Your task to perform on an android device: toggle data saver in the chrome app Image 0: 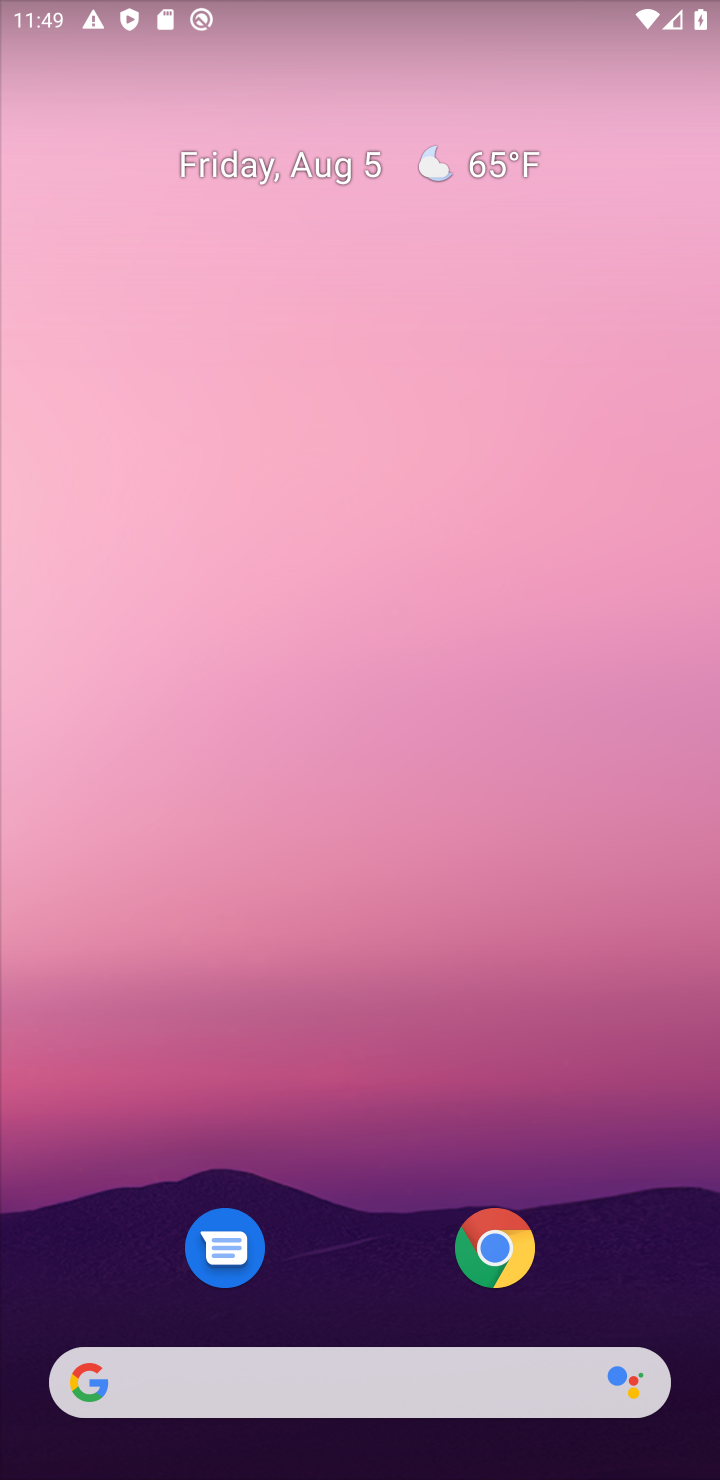
Step 0: press home button
Your task to perform on an android device: toggle data saver in the chrome app Image 1: 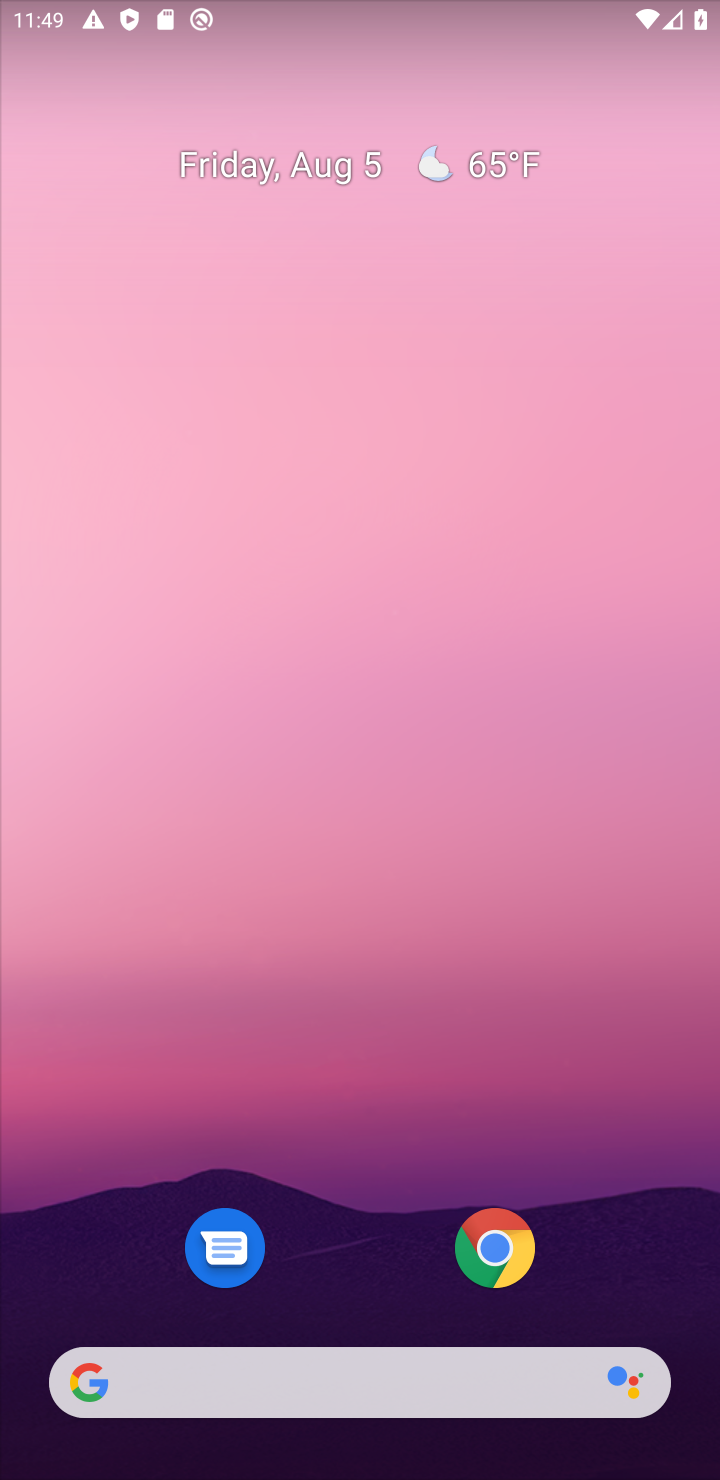
Step 1: drag from (372, 1288) to (264, 39)
Your task to perform on an android device: toggle data saver in the chrome app Image 2: 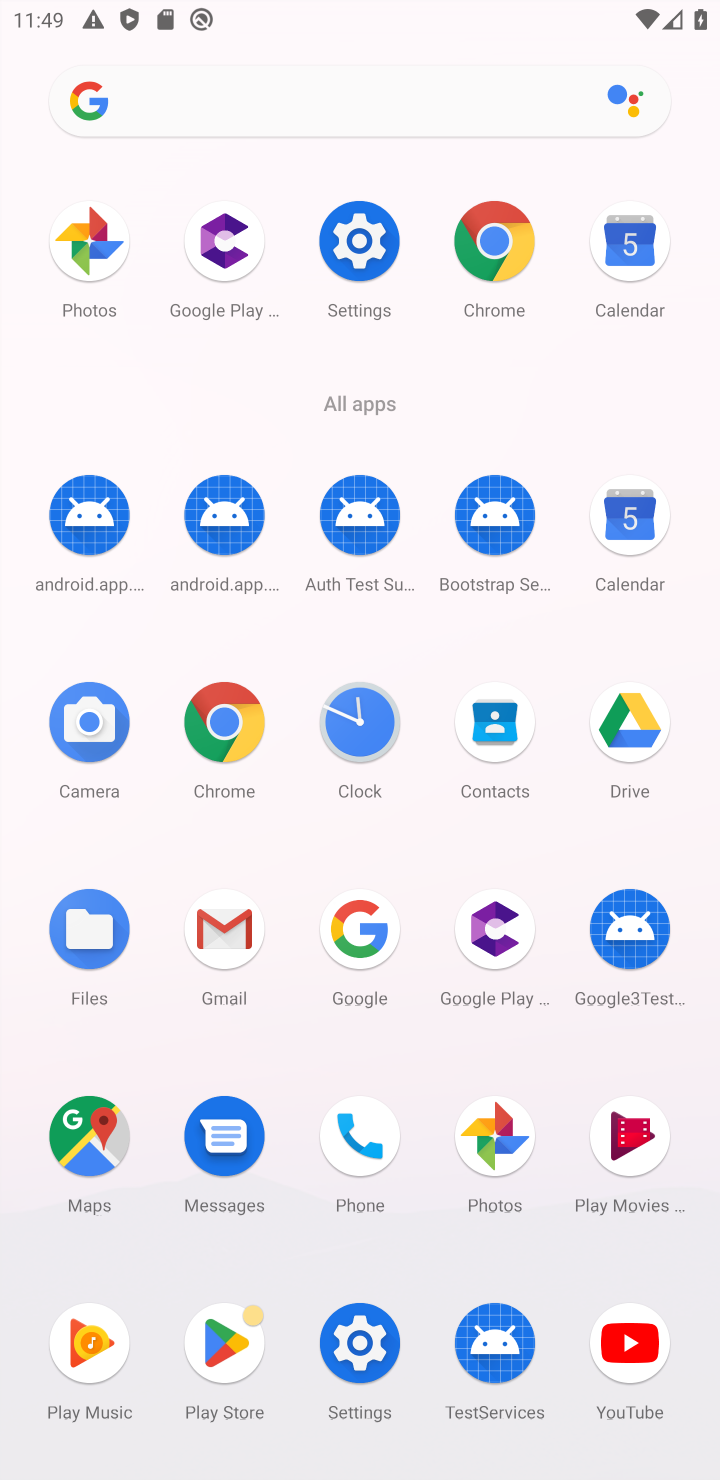
Step 2: click (218, 712)
Your task to perform on an android device: toggle data saver in the chrome app Image 3: 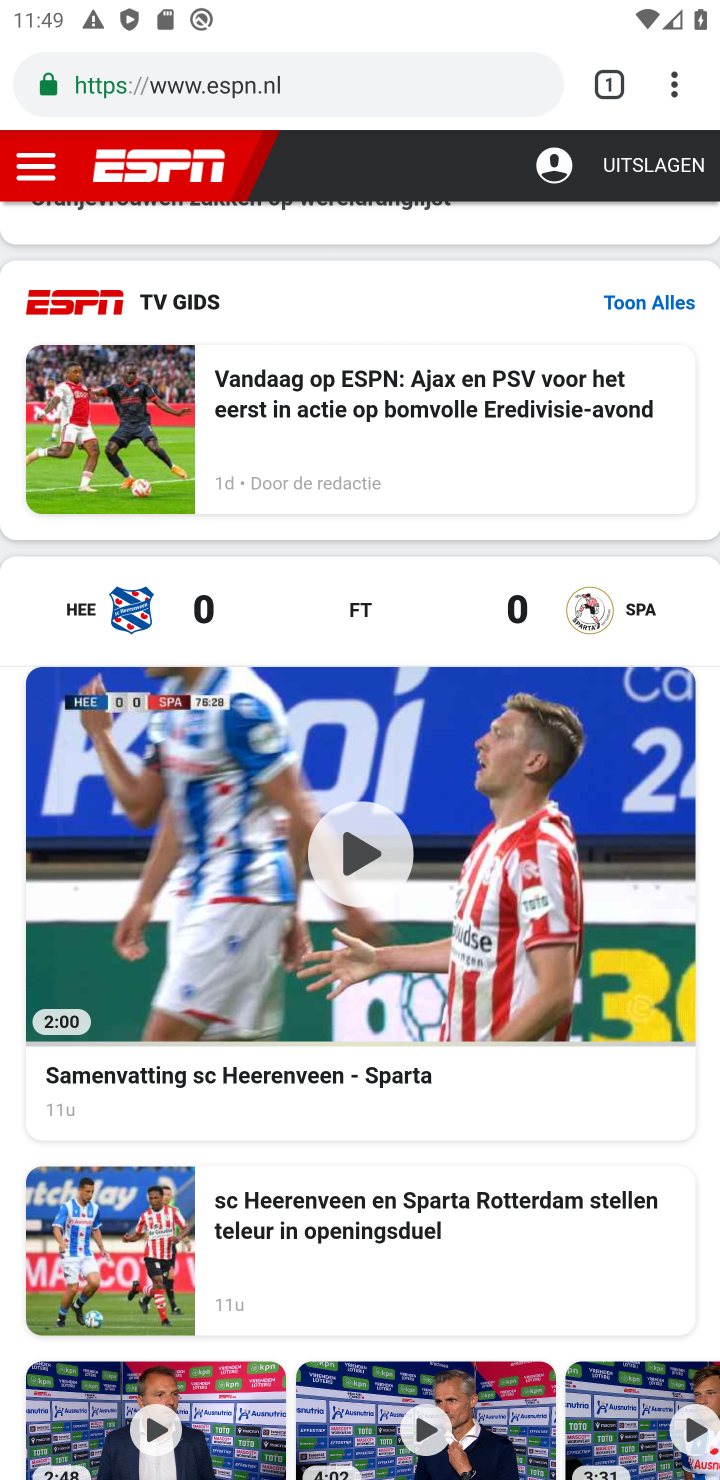
Step 3: click (676, 76)
Your task to perform on an android device: toggle data saver in the chrome app Image 4: 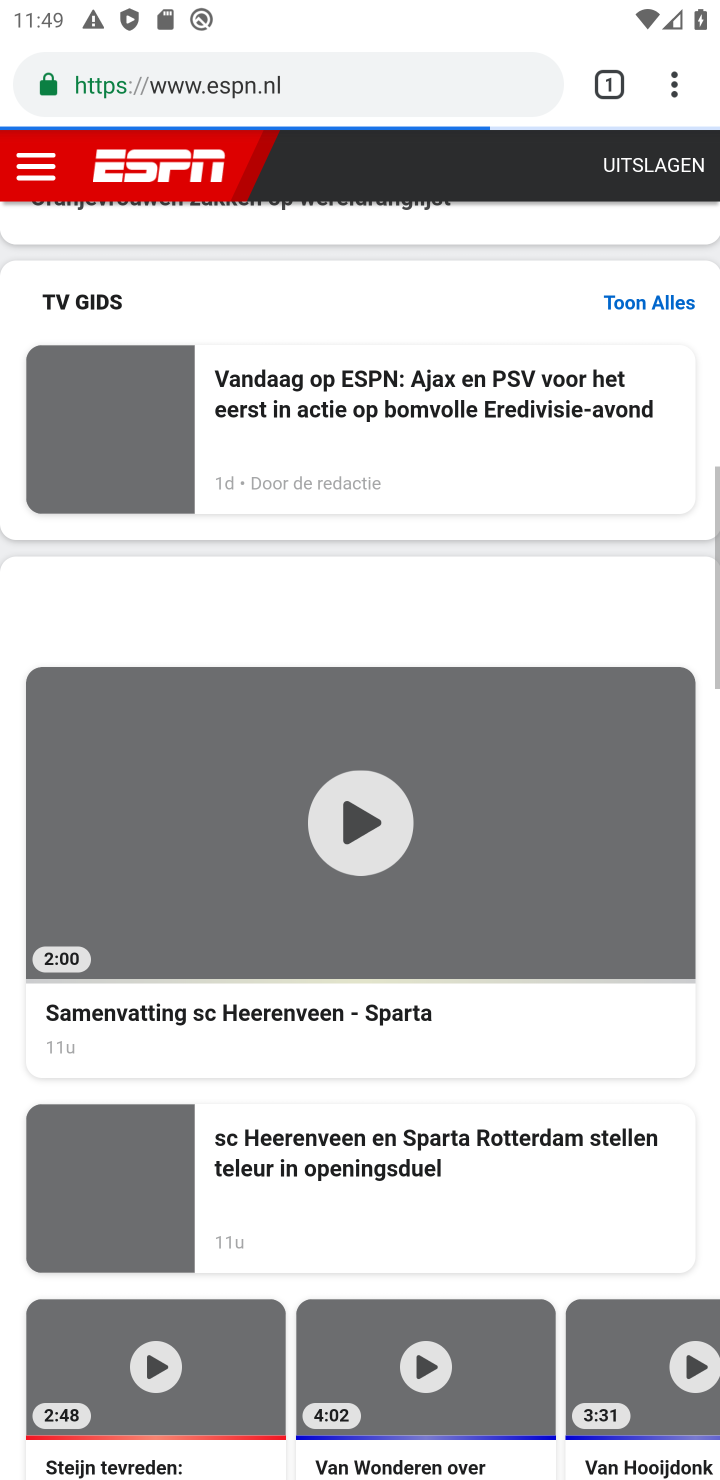
Step 4: click (678, 73)
Your task to perform on an android device: toggle data saver in the chrome app Image 5: 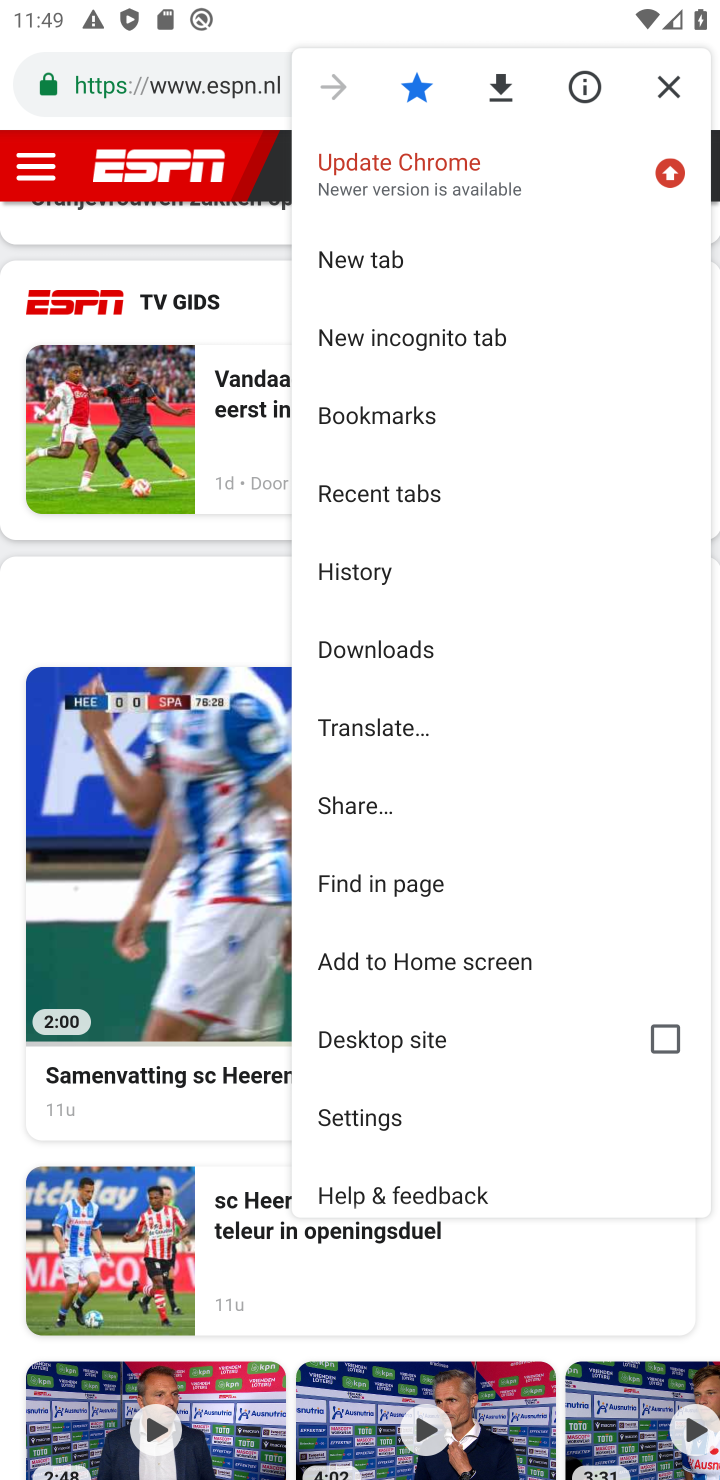
Step 5: click (412, 1111)
Your task to perform on an android device: toggle data saver in the chrome app Image 6: 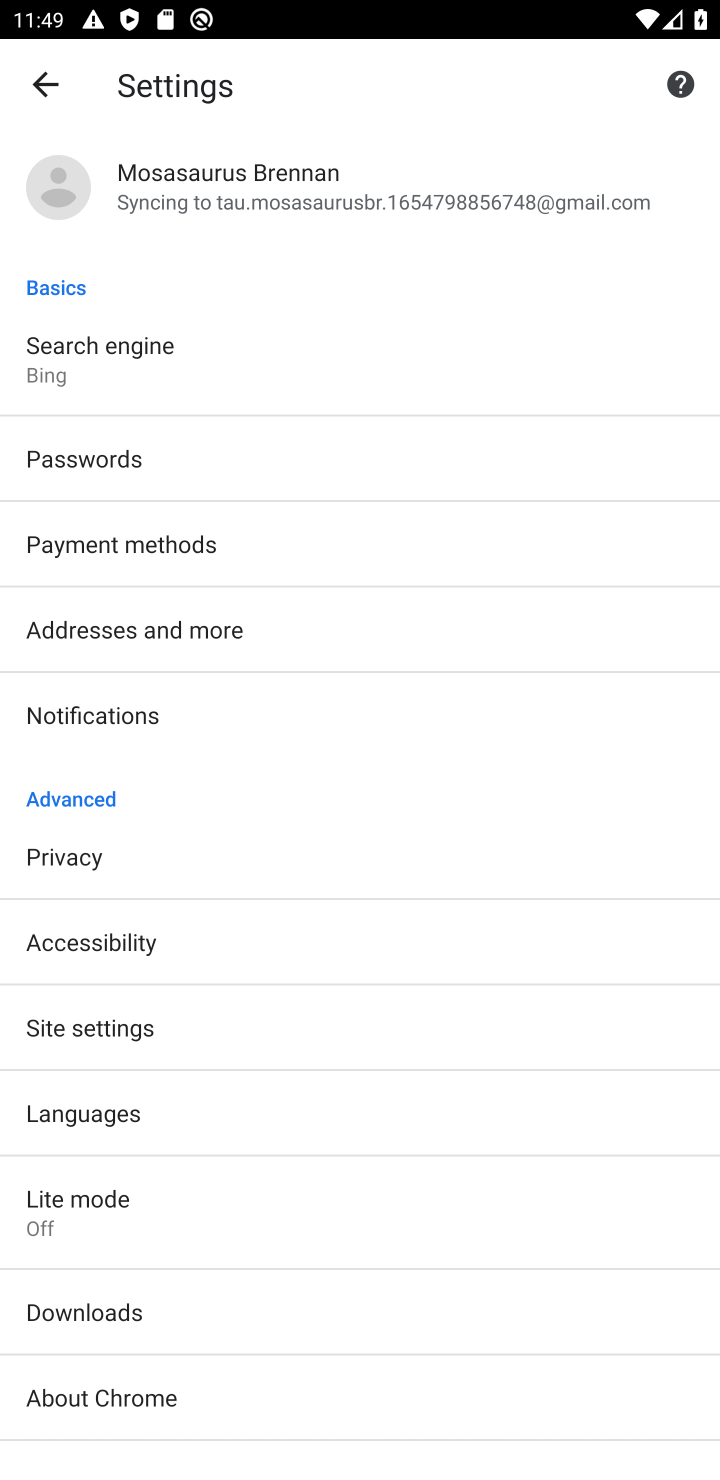
Step 6: click (133, 1217)
Your task to perform on an android device: toggle data saver in the chrome app Image 7: 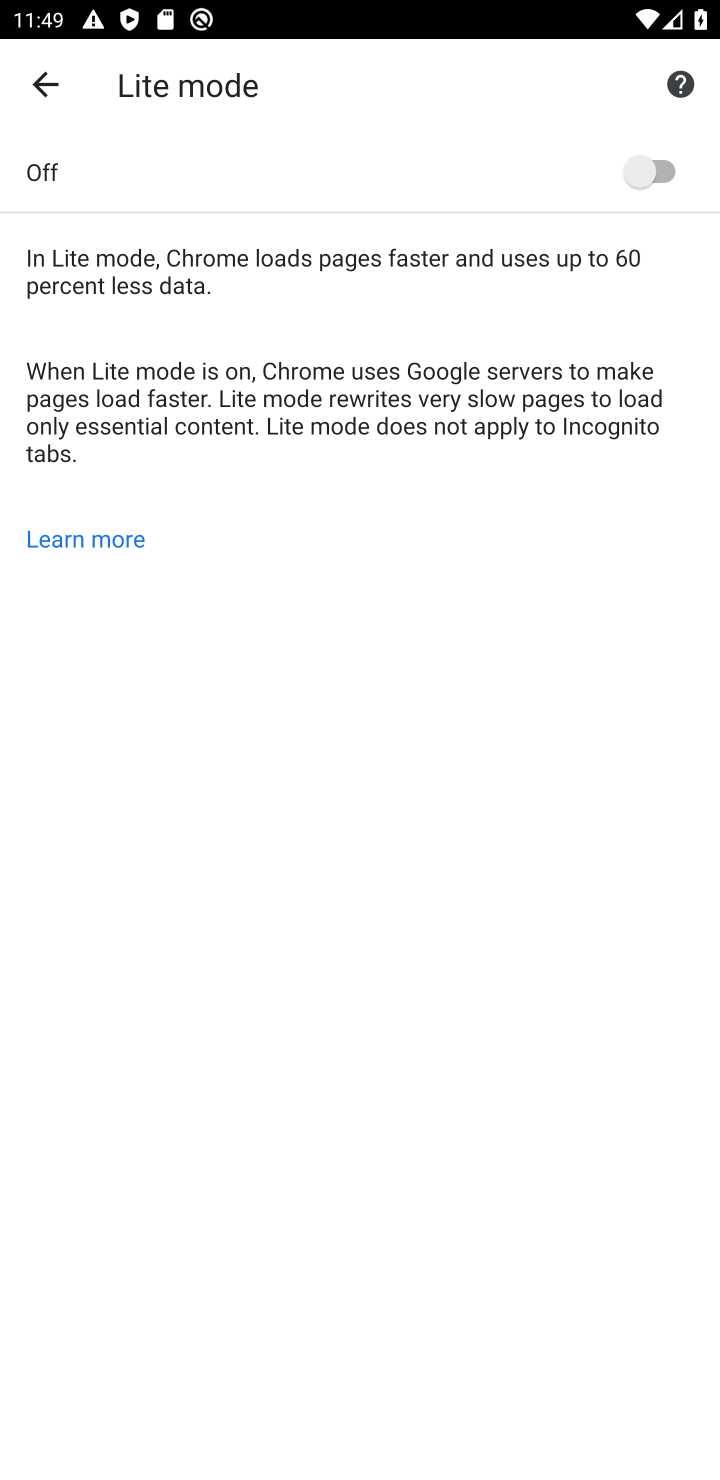
Step 7: click (661, 158)
Your task to perform on an android device: toggle data saver in the chrome app Image 8: 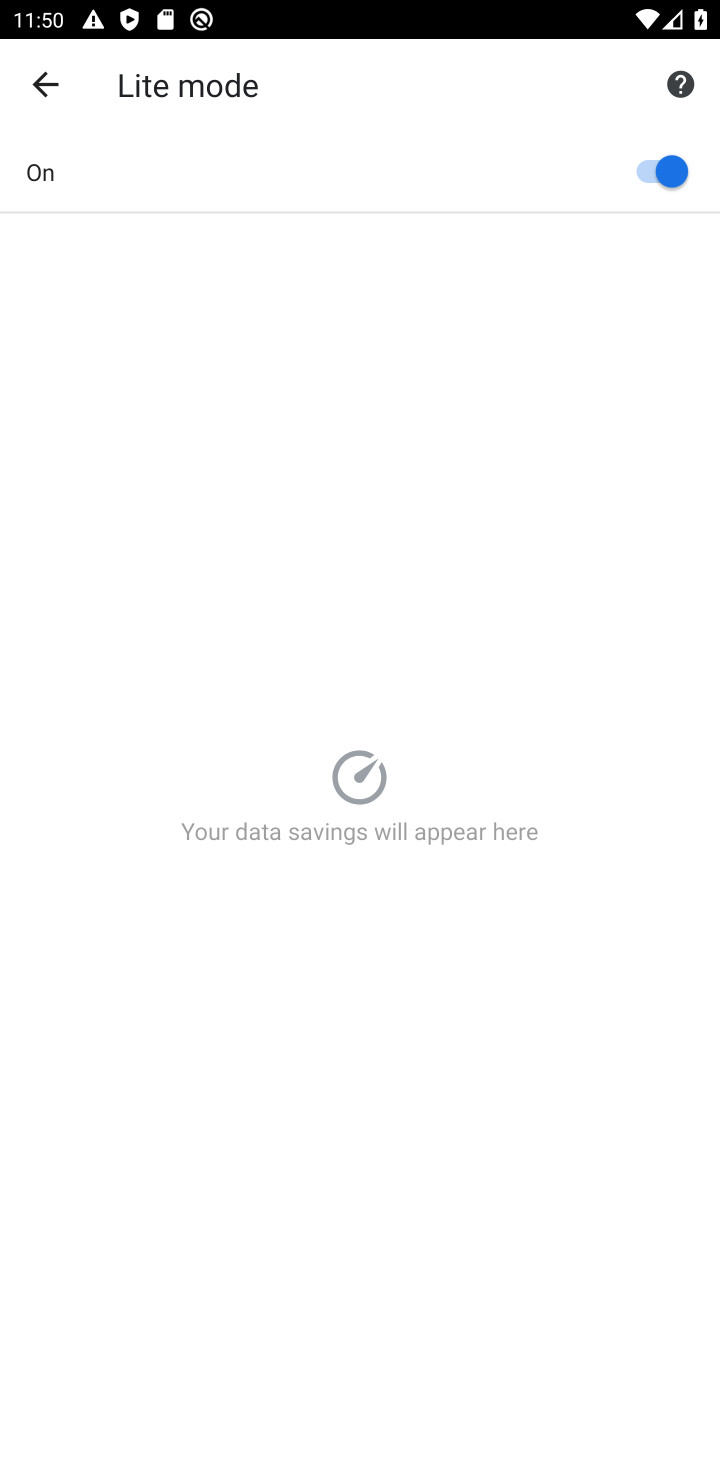
Step 8: task complete